Your task to perform on an android device: turn smart compose on in the gmail app Image 0: 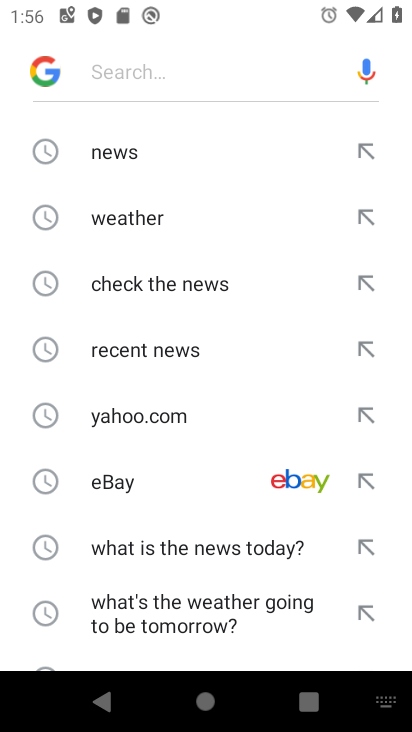
Step 0: press home button
Your task to perform on an android device: turn smart compose on in the gmail app Image 1: 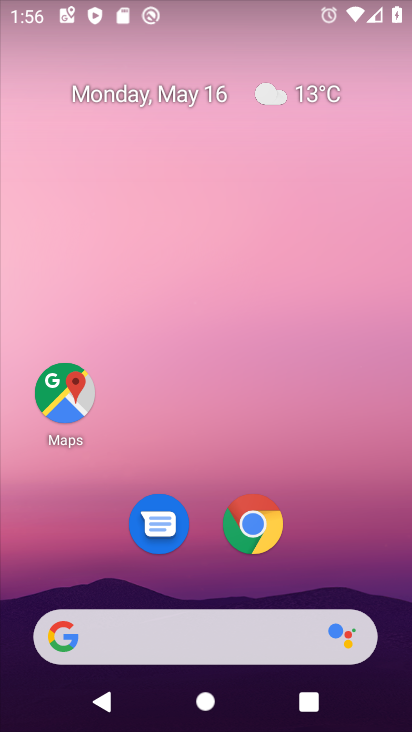
Step 1: drag from (309, 545) to (294, 26)
Your task to perform on an android device: turn smart compose on in the gmail app Image 2: 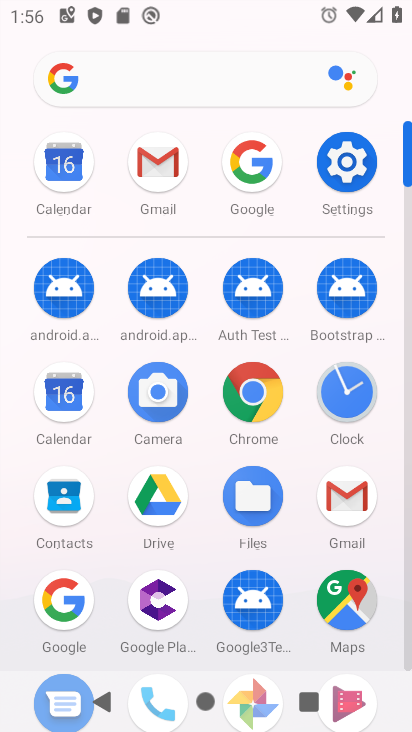
Step 2: click (156, 162)
Your task to perform on an android device: turn smart compose on in the gmail app Image 3: 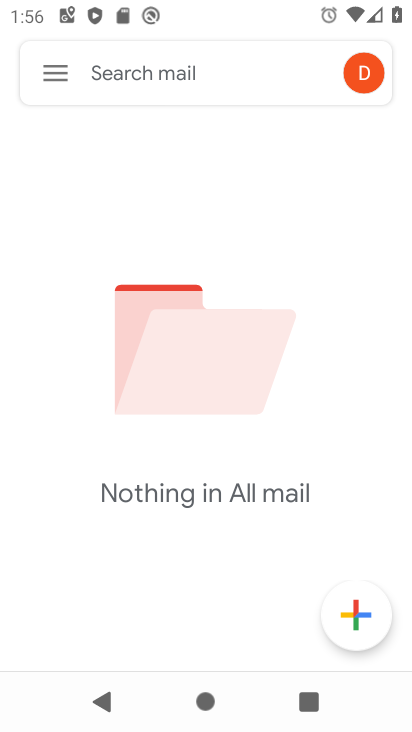
Step 3: click (55, 69)
Your task to perform on an android device: turn smart compose on in the gmail app Image 4: 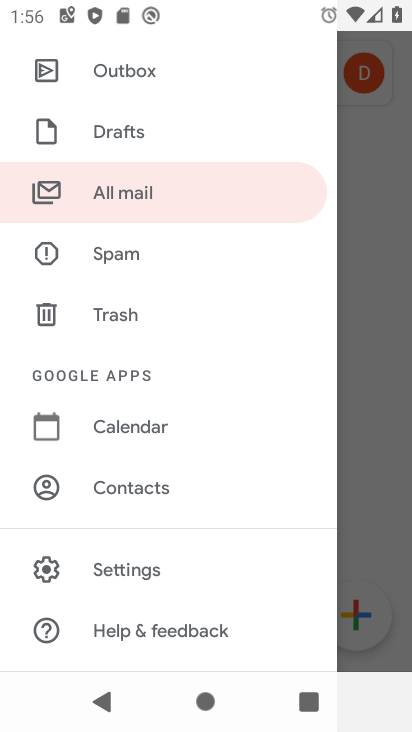
Step 4: click (131, 563)
Your task to perform on an android device: turn smart compose on in the gmail app Image 5: 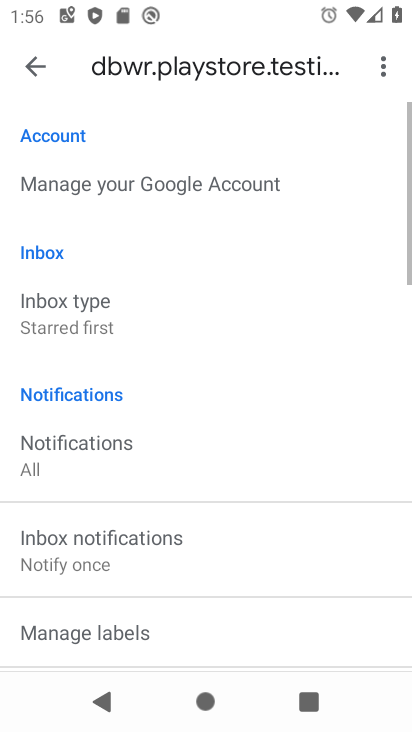
Step 5: task complete